Your task to perform on an android device: Go to Google Image 0: 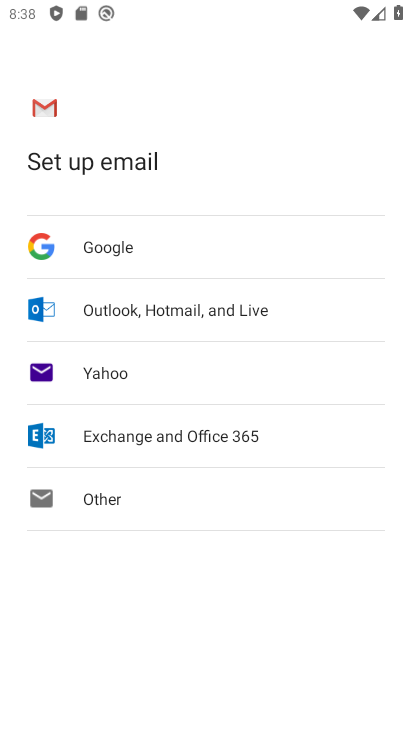
Step 0: press back button
Your task to perform on an android device: Go to Google Image 1: 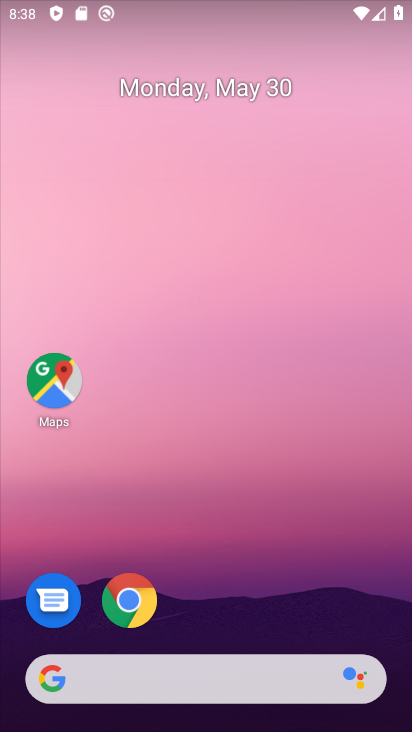
Step 1: drag from (295, 574) to (219, 37)
Your task to perform on an android device: Go to Google Image 2: 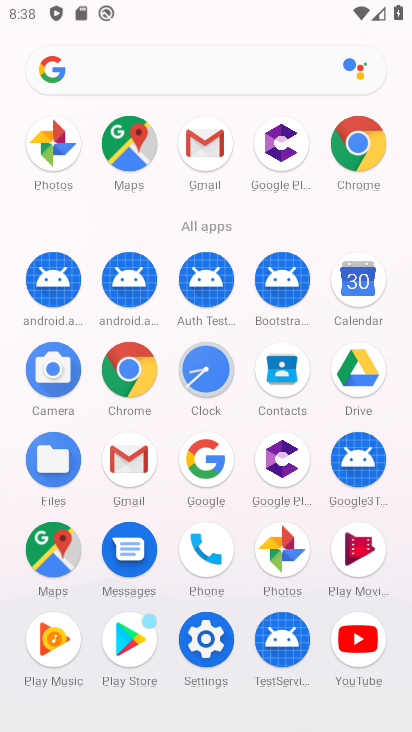
Step 2: drag from (2, 563) to (7, 185)
Your task to perform on an android device: Go to Google Image 3: 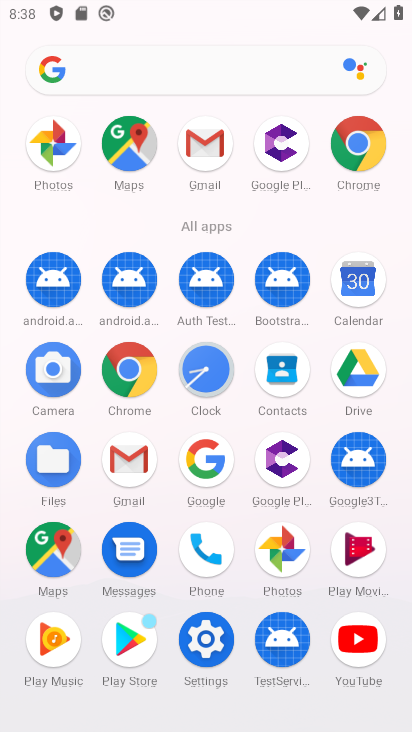
Step 3: click (127, 362)
Your task to perform on an android device: Go to Google Image 4: 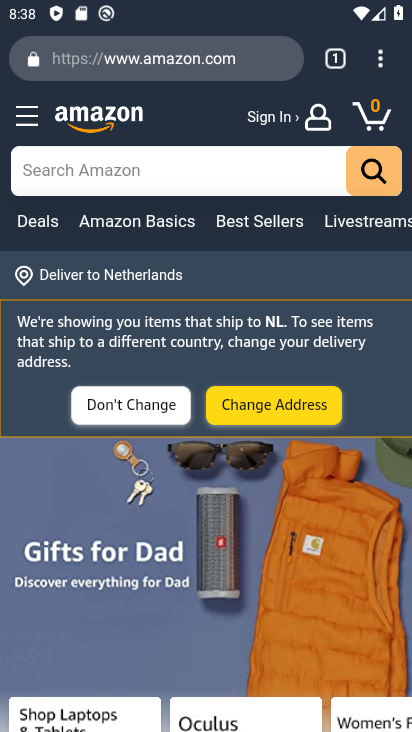
Step 4: click (131, 47)
Your task to perform on an android device: Go to Google Image 5: 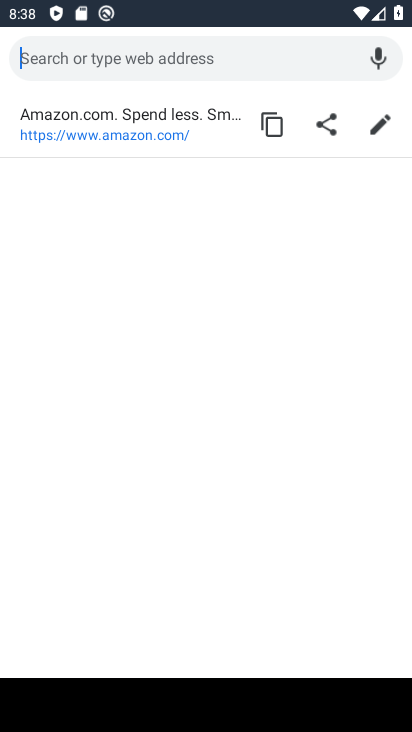
Step 5: type "Google"
Your task to perform on an android device: Go to Google Image 6: 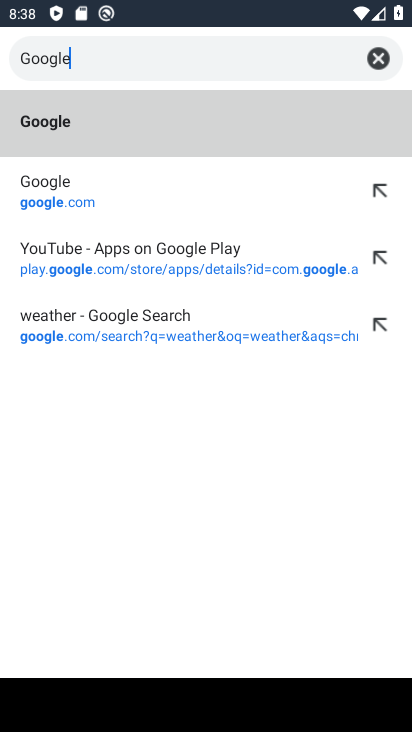
Step 6: type ""
Your task to perform on an android device: Go to Google Image 7: 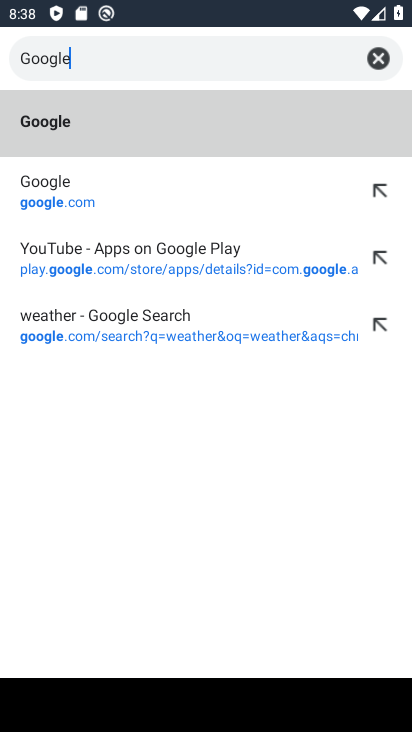
Step 7: click (100, 198)
Your task to perform on an android device: Go to Google Image 8: 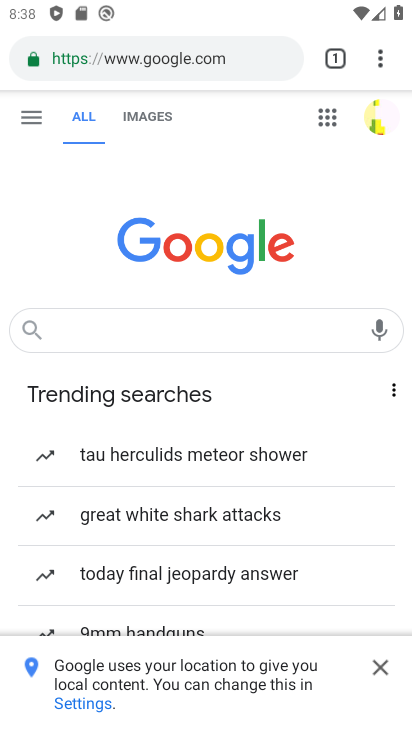
Step 8: task complete